Your task to perform on an android device: set the stopwatch Image 0: 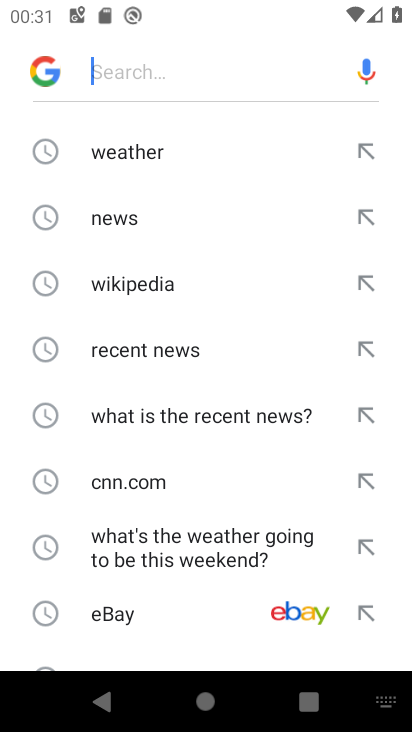
Step 0: press home button
Your task to perform on an android device: set the stopwatch Image 1: 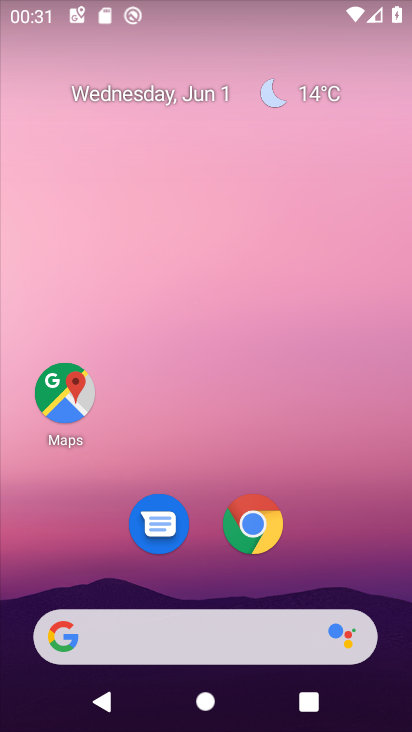
Step 1: drag from (321, 529) to (259, 32)
Your task to perform on an android device: set the stopwatch Image 2: 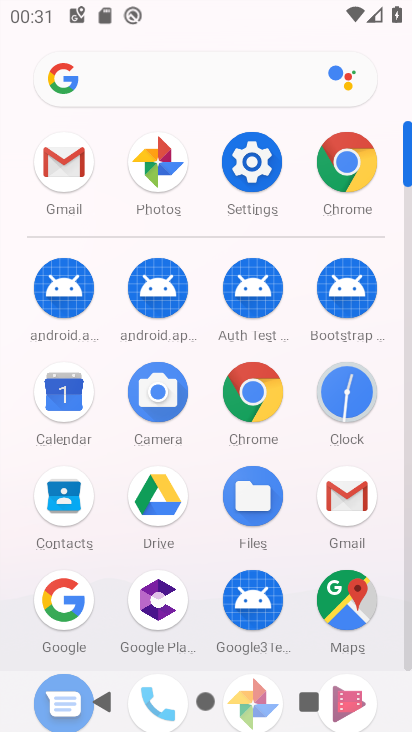
Step 2: click (345, 394)
Your task to perform on an android device: set the stopwatch Image 3: 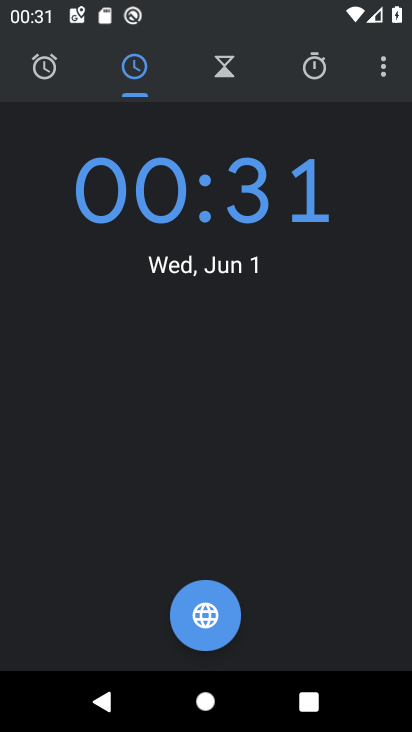
Step 3: click (320, 68)
Your task to perform on an android device: set the stopwatch Image 4: 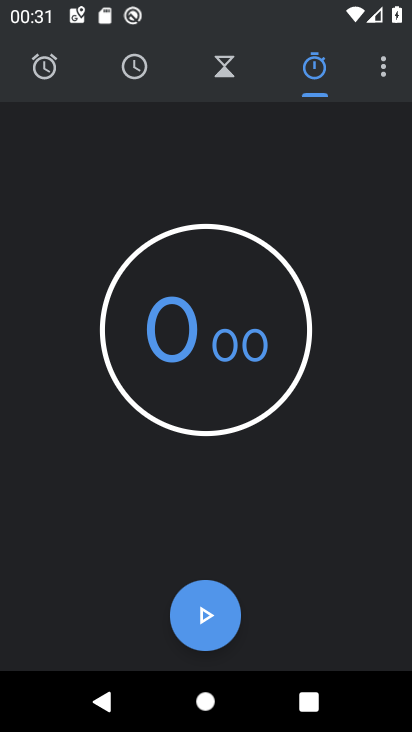
Step 4: task complete